Your task to perform on an android device: open app "Adobe Acrobat Reader: Edit PDF" Image 0: 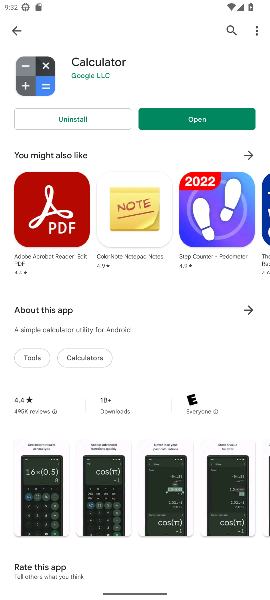
Step 0: press home button
Your task to perform on an android device: open app "Adobe Acrobat Reader: Edit PDF" Image 1: 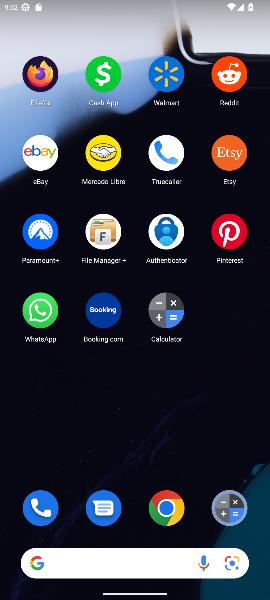
Step 1: drag from (121, 557) to (179, 94)
Your task to perform on an android device: open app "Adobe Acrobat Reader: Edit PDF" Image 2: 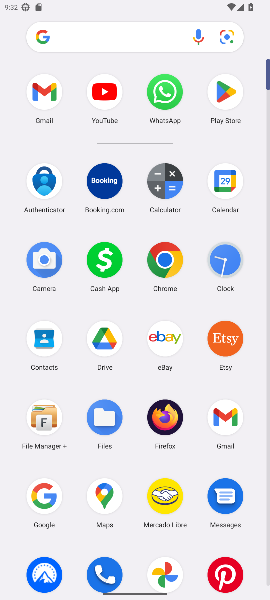
Step 2: click (224, 94)
Your task to perform on an android device: open app "Adobe Acrobat Reader: Edit PDF" Image 3: 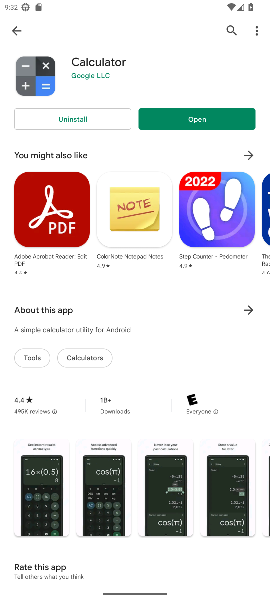
Step 3: click (226, 26)
Your task to perform on an android device: open app "Adobe Acrobat Reader: Edit PDF" Image 4: 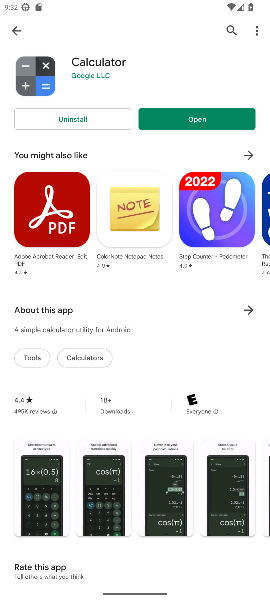
Step 4: click (226, 26)
Your task to perform on an android device: open app "Adobe Acrobat Reader: Edit PDF" Image 5: 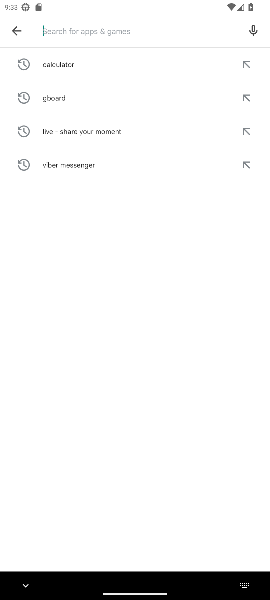
Step 5: type "adobe acrobat reader: edit pdf"
Your task to perform on an android device: open app "Adobe Acrobat Reader: Edit PDF" Image 6: 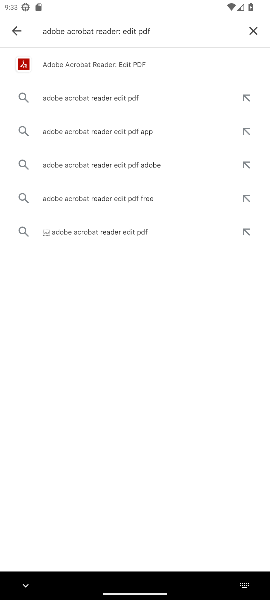
Step 6: click (31, 62)
Your task to perform on an android device: open app "Adobe Acrobat Reader: Edit PDF" Image 7: 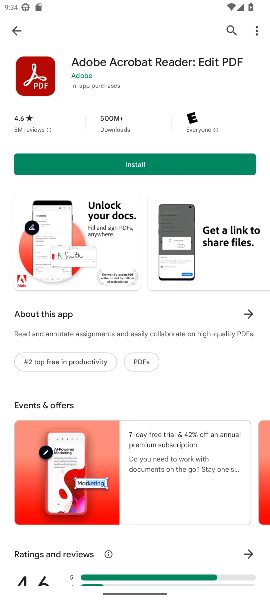
Step 7: task complete